Your task to perform on an android device: toggle data saver in the chrome app Image 0: 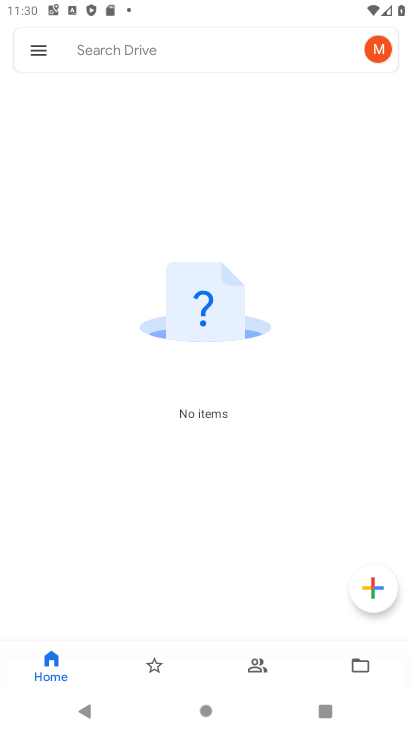
Step 0: press home button
Your task to perform on an android device: toggle data saver in the chrome app Image 1: 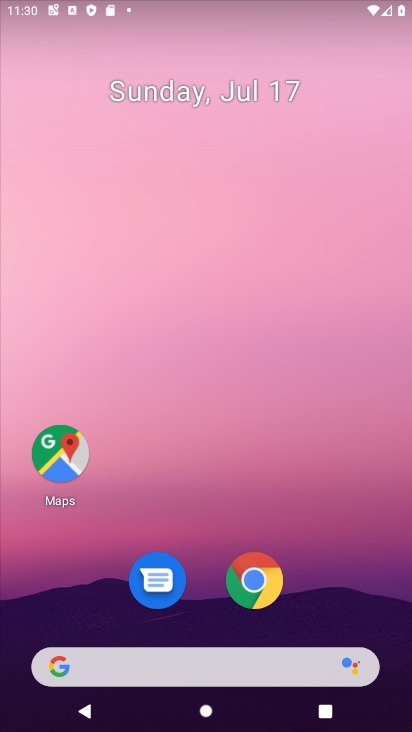
Step 1: drag from (269, 621) to (330, 131)
Your task to perform on an android device: toggle data saver in the chrome app Image 2: 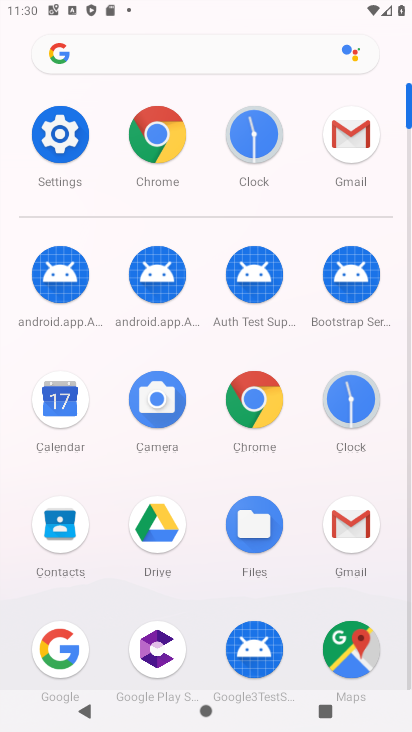
Step 2: click (259, 418)
Your task to perform on an android device: toggle data saver in the chrome app Image 3: 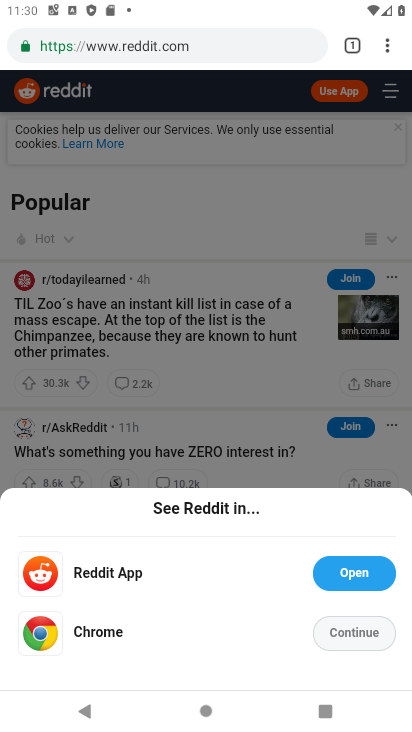
Step 3: click (391, 47)
Your task to perform on an android device: toggle data saver in the chrome app Image 4: 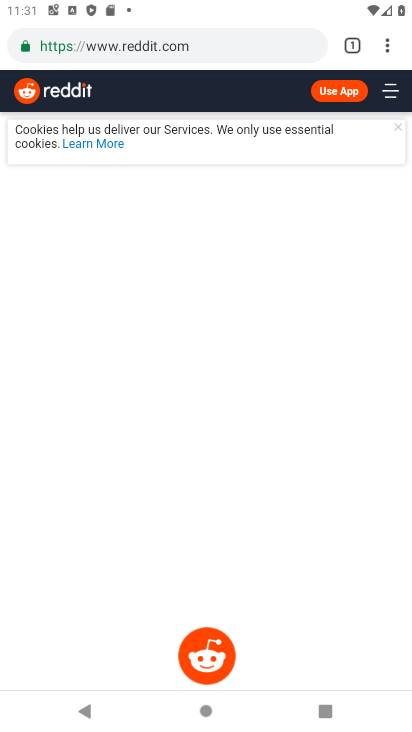
Step 4: click (387, 47)
Your task to perform on an android device: toggle data saver in the chrome app Image 5: 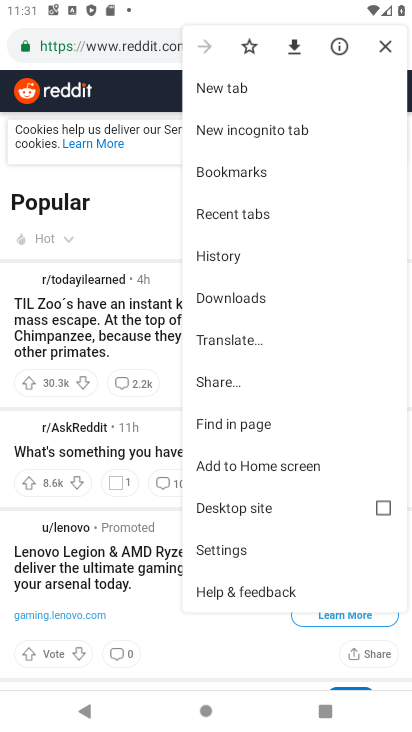
Step 5: click (231, 549)
Your task to perform on an android device: toggle data saver in the chrome app Image 6: 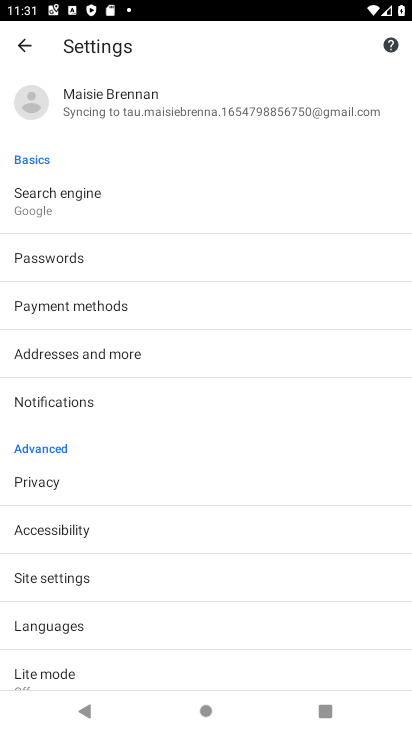
Step 6: drag from (150, 494) to (221, 130)
Your task to perform on an android device: toggle data saver in the chrome app Image 7: 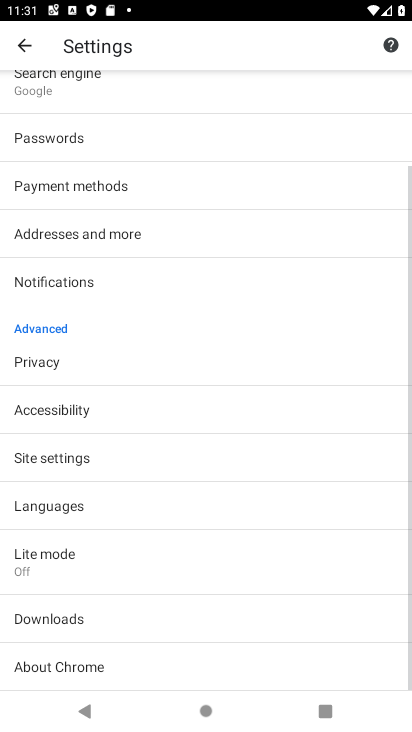
Step 7: click (94, 569)
Your task to perform on an android device: toggle data saver in the chrome app Image 8: 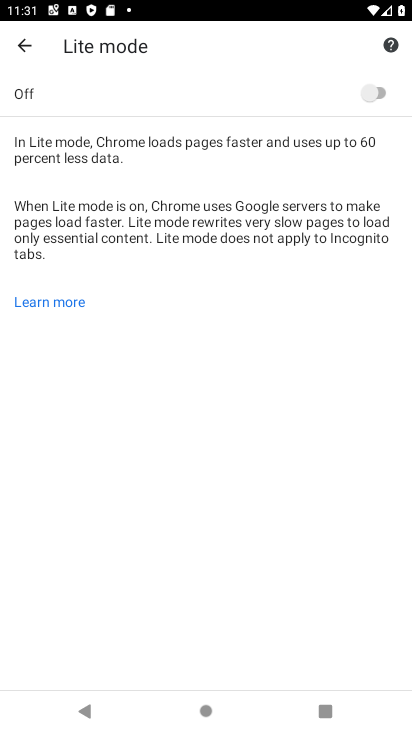
Step 8: click (375, 96)
Your task to perform on an android device: toggle data saver in the chrome app Image 9: 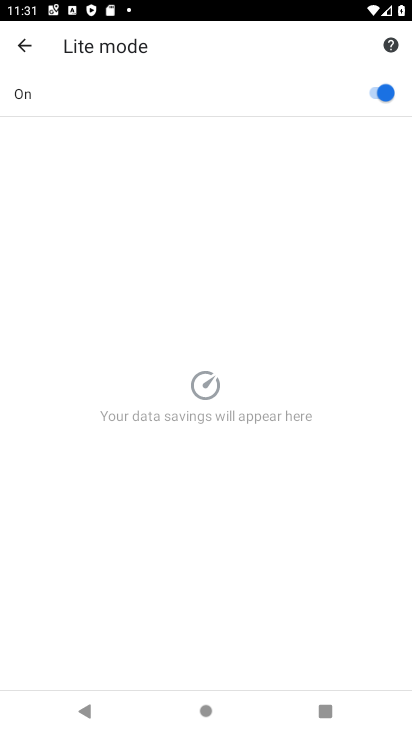
Step 9: task complete